Your task to perform on an android device: make emails show in primary in the gmail app Image 0: 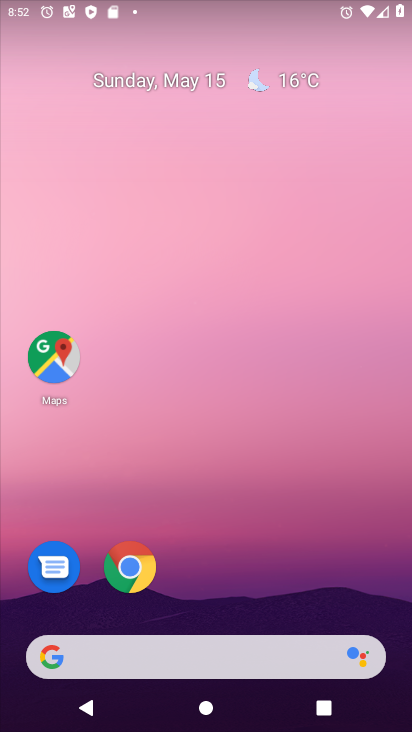
Step 0: drag from (232, 663) to (293, 99)
Your task to perform on an android device: make emails show in primary in the gmail app Image 1: 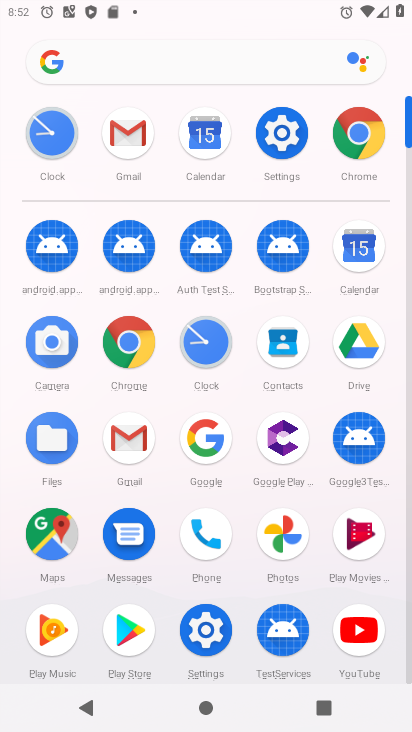
Step 1: click (139, 132)
Your task to perform on an android device: make emails show in primary in the gmail app Image 2: 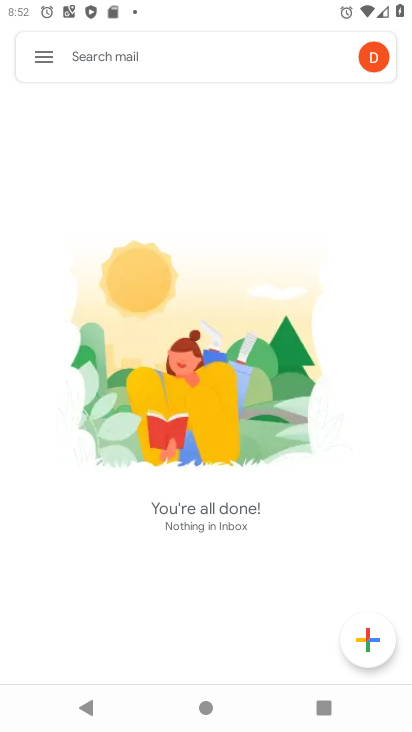
Step 2: click (45, 65)
Your task to perform on an android device: make emails show in primary in the gmail app Image 3: 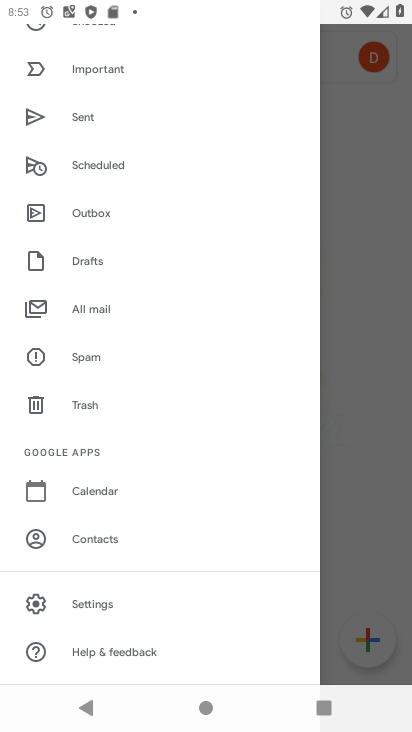
Step 3: click (97, 602)
Your task to perform on an android device: make emails show in primary in the gmail app Image 4: 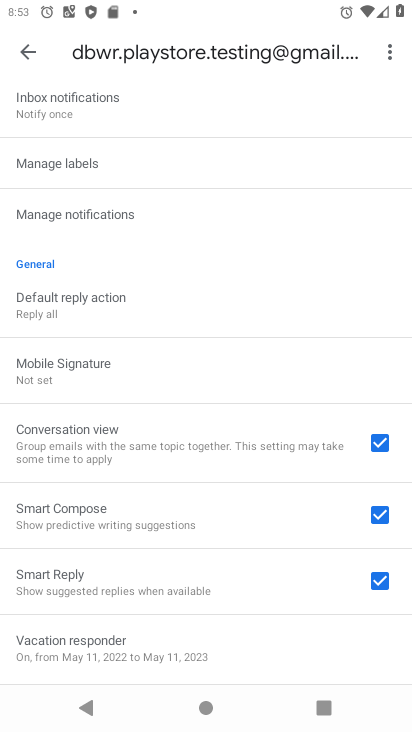
Step 4: task complete